Your task to perform on an android device: toggle location history Image 0: 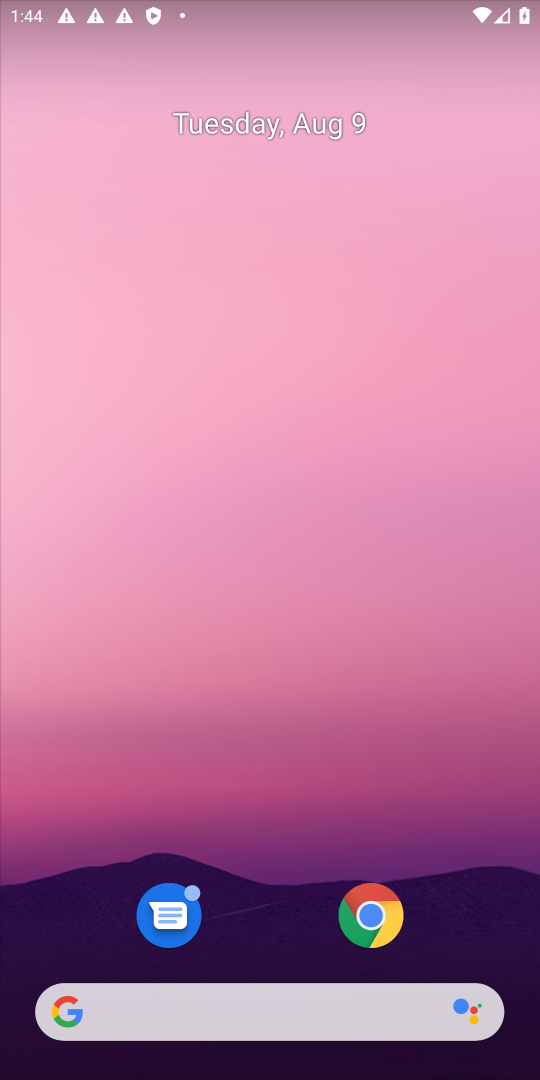
Step 0: drag from (310, 1027) to (222, 336)
Your task to perform on an android device: toggle location history Image 1: 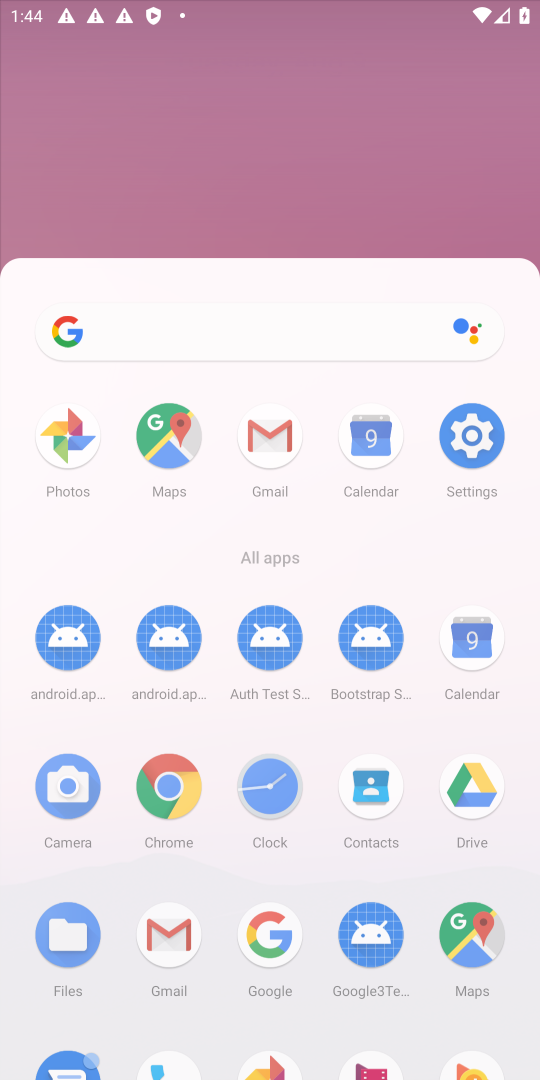
Step 1: click (220, 192)
Your task to perform on an android device: toggle location history Image 2: 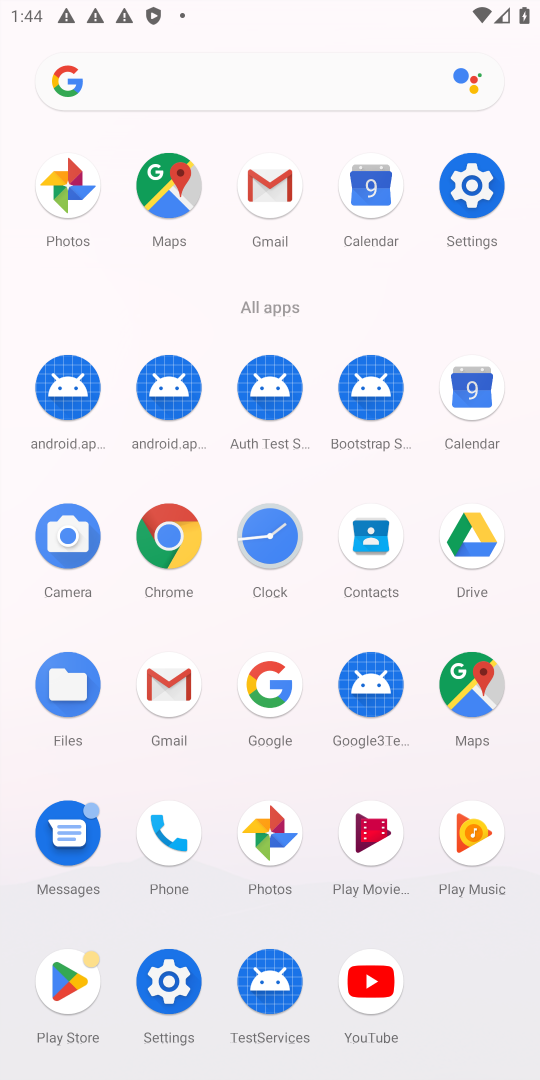
Step 2: drag from (321, 640) to (345, 215)
Your task to perform on an android device: toggle location history Image 3: 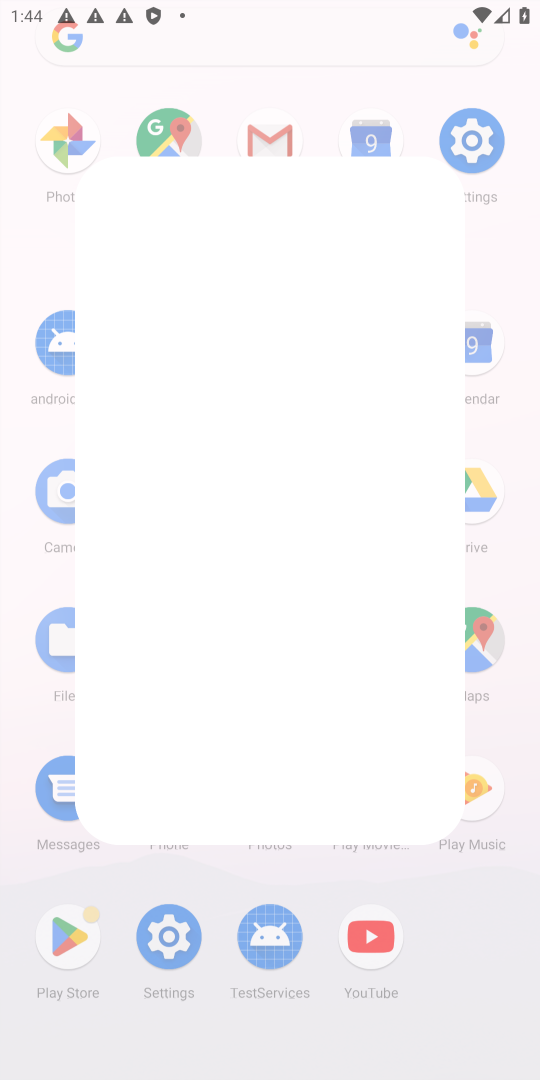
Step 3: click (444, 199)
Your task to perform on an android device: toggle location history Image 4: 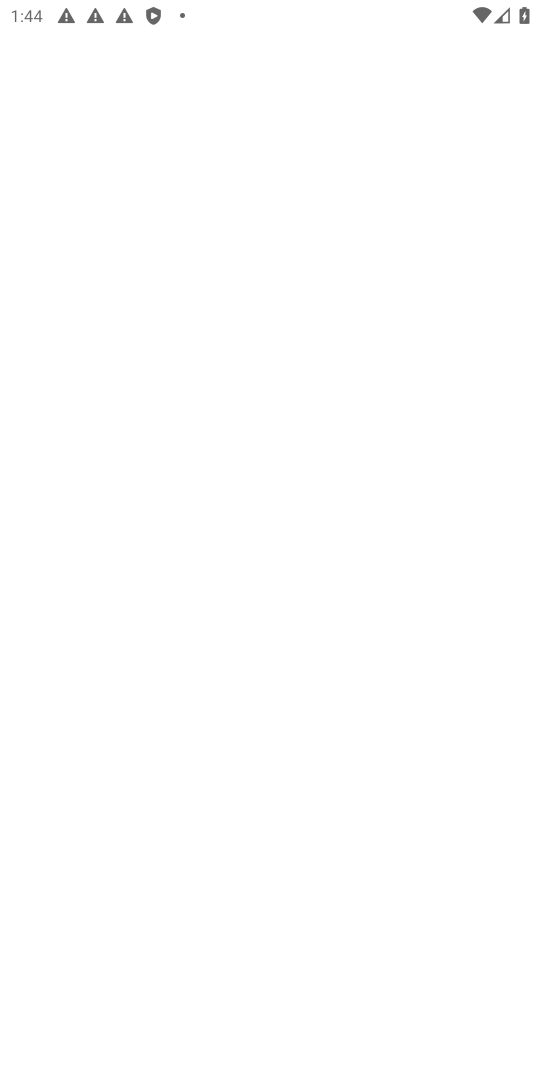
Step 4: click (446, 197)
Your task to perform on an android device: toggle location history Image 5: 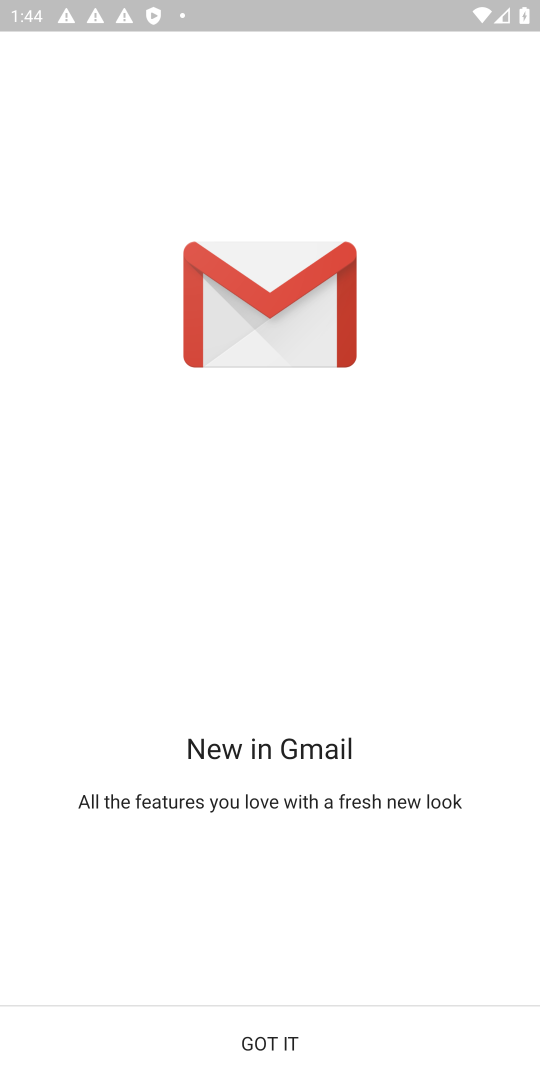
Step 5: press back button
Your task to perform on an android device: toggle location history Image 6: 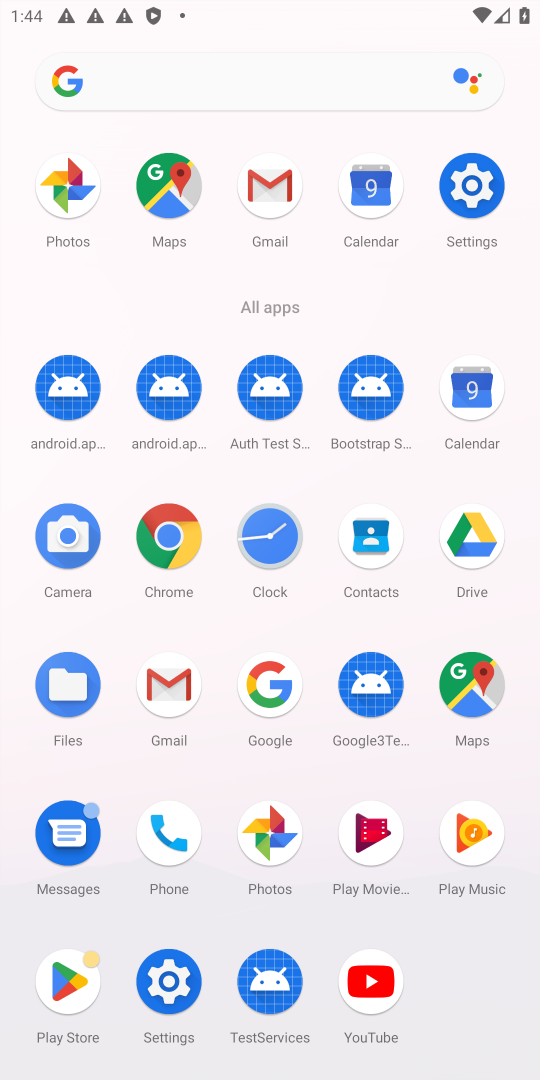
Step 6: click (260, 1049)
Your task to perform on an android device: toggle location history Image 7: 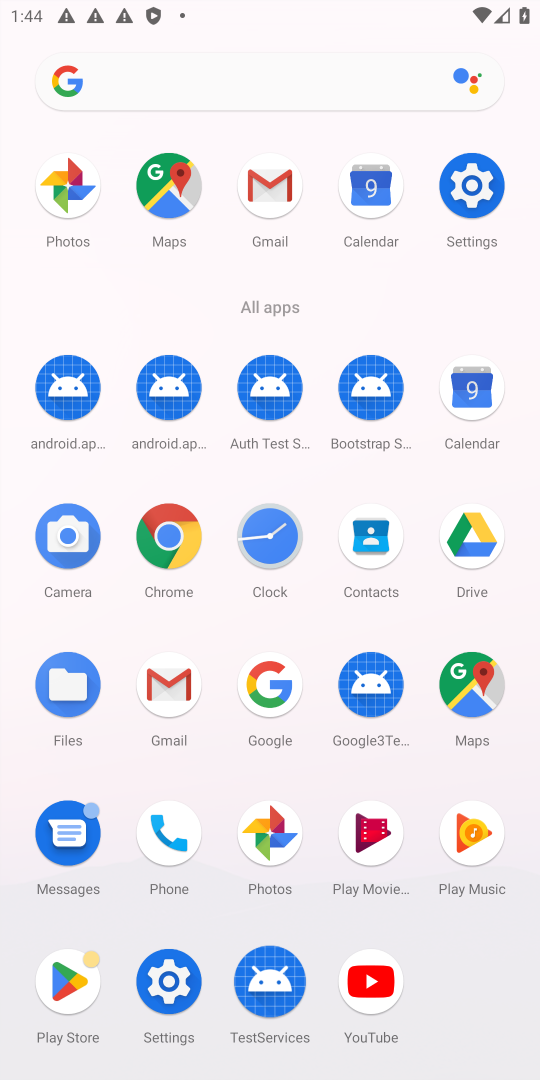
Step 7: click (474, 192)
Your task to perform on an android device: toggle location history Image 8: 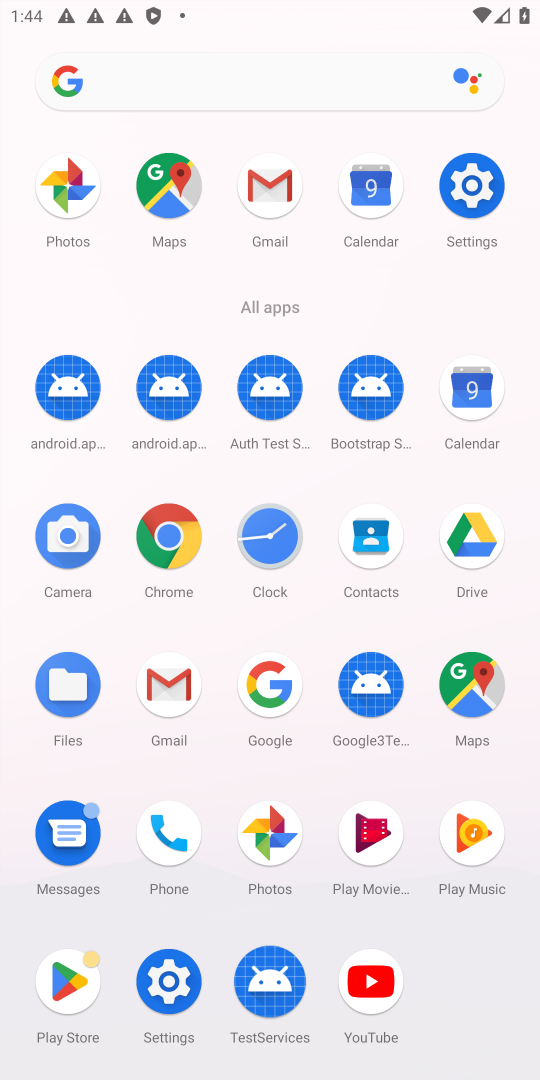
Step 8: click (474, 192)
Your task to perform on an android device: toggle location history Image 9: 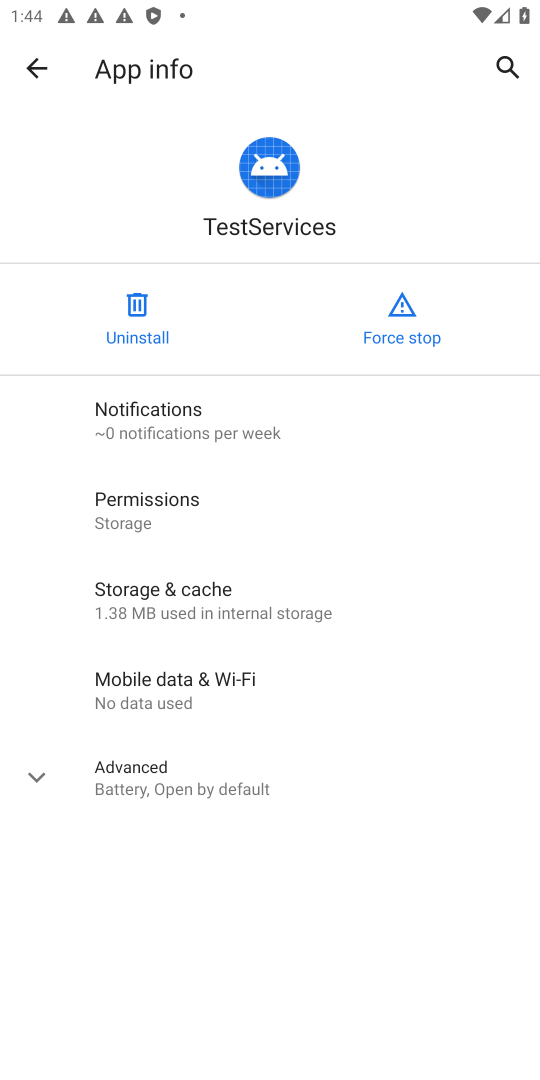
Step 9: click (474, 192)
Your task to perform on an android device: toggle location history Image 10: 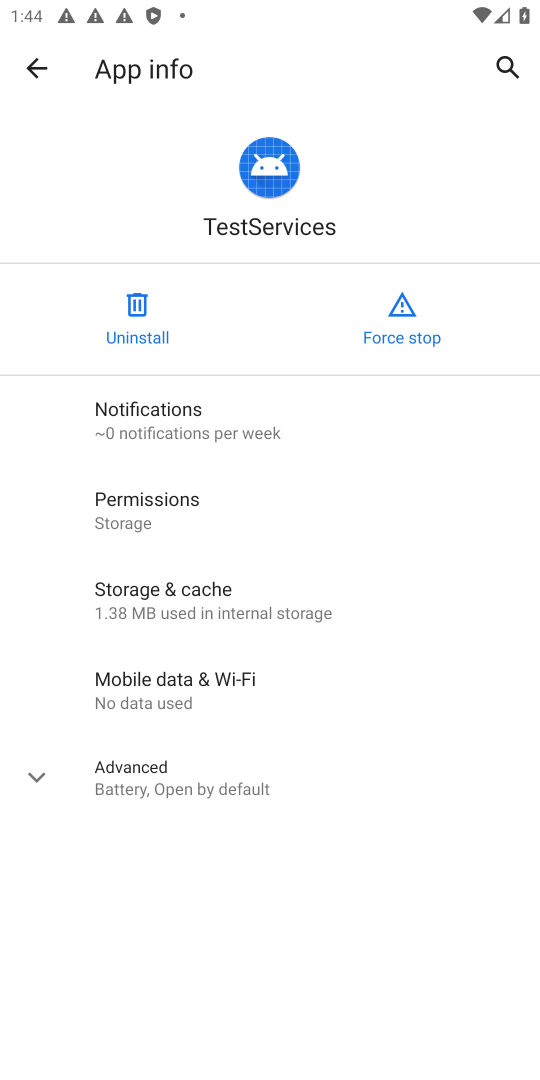
Step 10: click (469, 195)
Your task to perform on an android device: toggle location history Image 11: 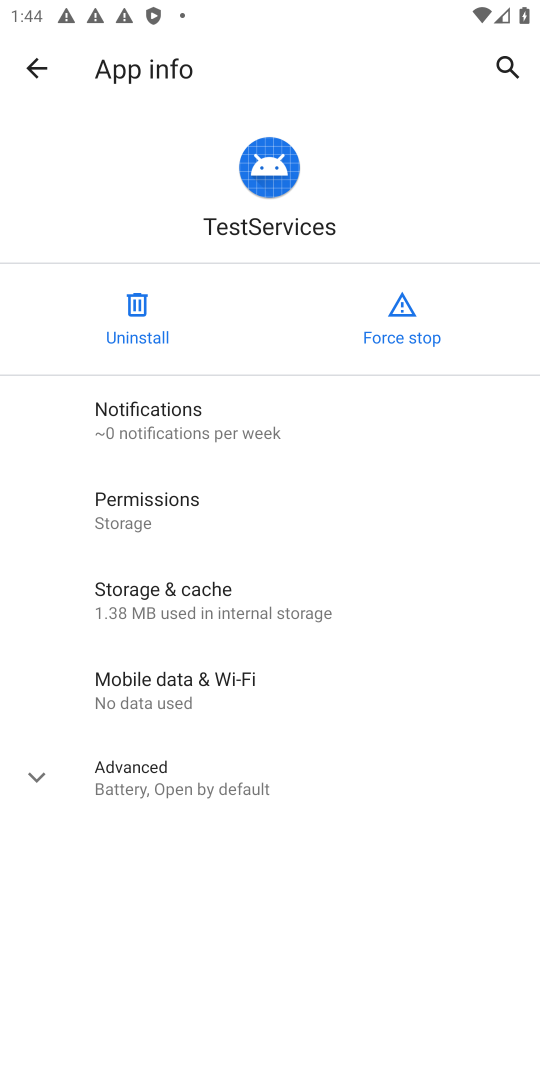
Step 11: click (38, 75)
Your task to perform on an android device: toggle location history Image 12: 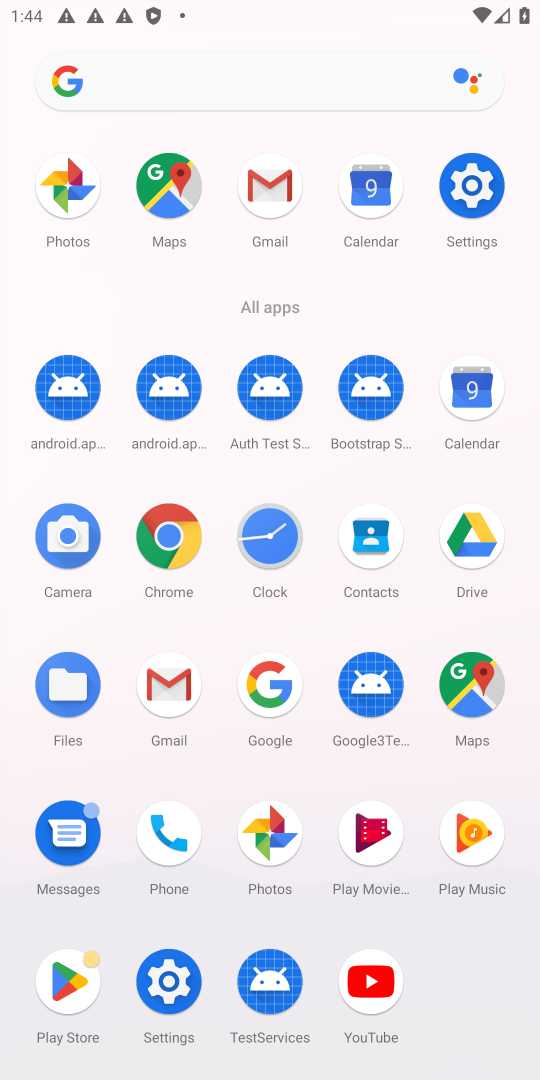
Step 12: click (466, 169)
Your task to perform on an android device: toggle location history Image 13: 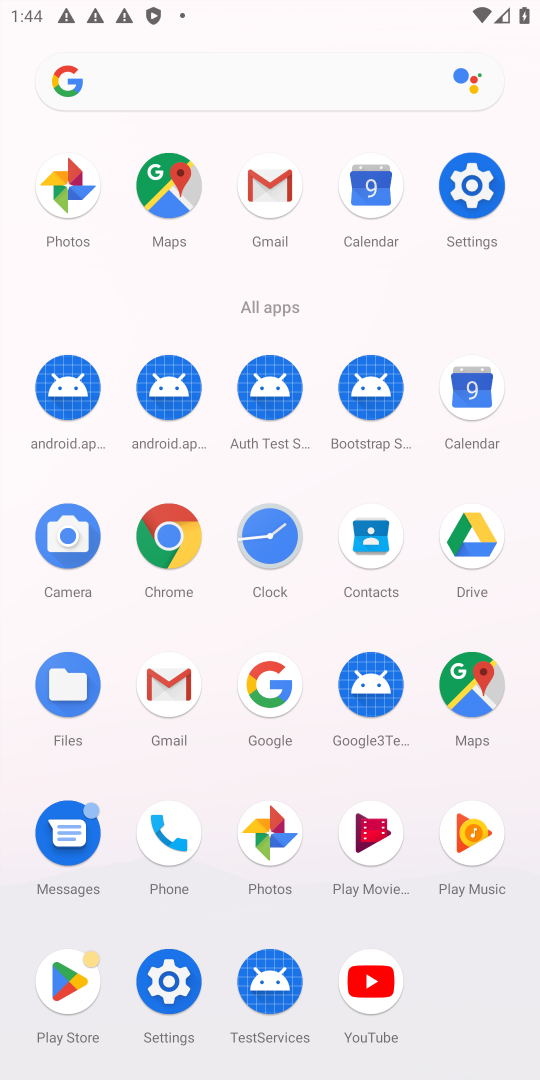
Step 13: click (468, 175)
Your task to perform on an android device: toggle location history Image 14: 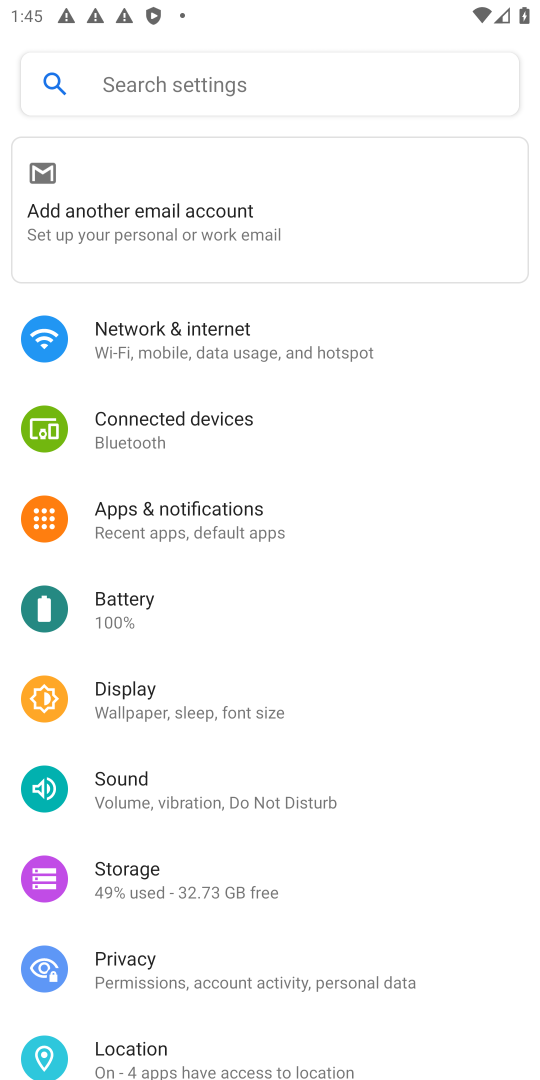
Step 14: drag from (160, 930) to (185, 529)
Your task to perform on an android device: toggle location history Image 15: 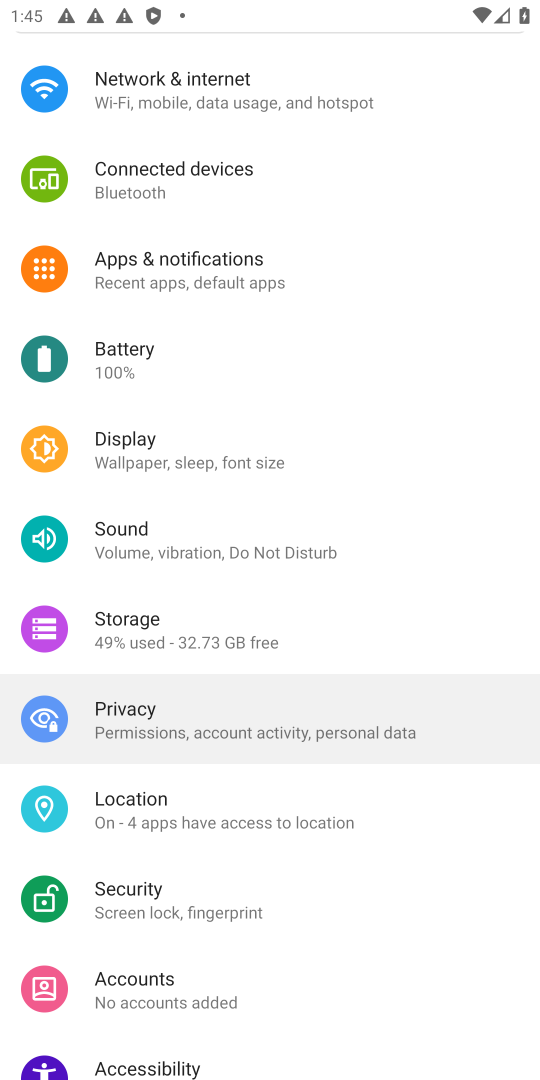
Step 15: drag from (187, 869) to (187, 574)
Your task to perform on an android device: toggle location history Image 16: 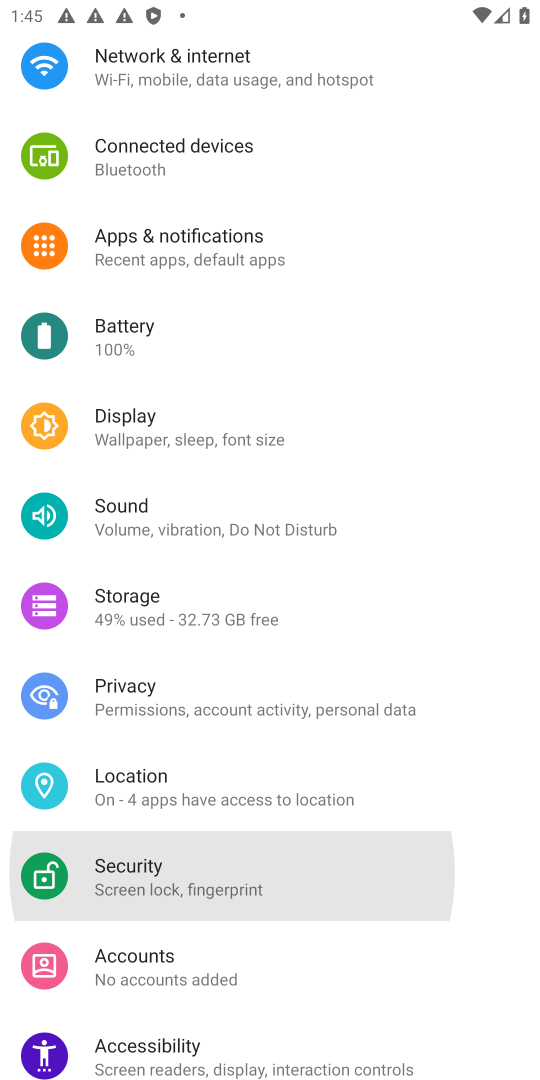
Step 16: drag from (280, 917) to (277, 531)
Your task to perform on an android device: toggle location history Image 17: 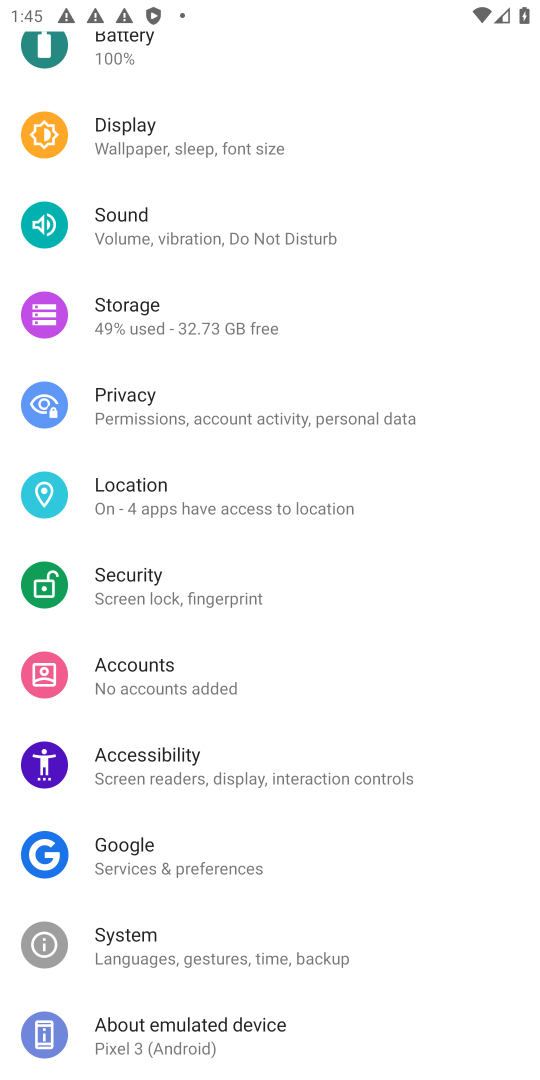
Step 17: click (127, 587)
Your task to perform on an android device: toggle location history Image 18: 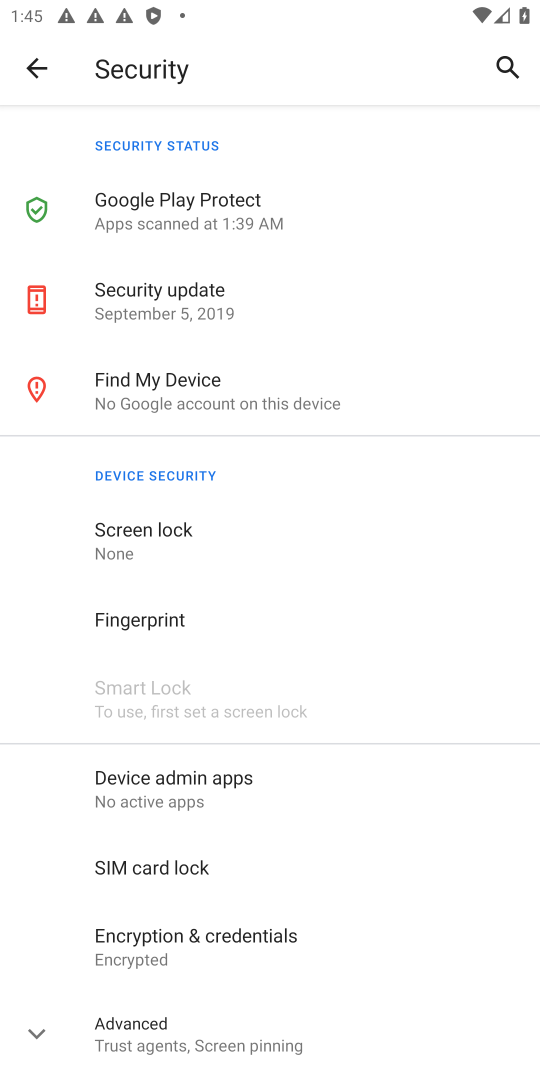
Step 18: click (31, 68)
Your task to perform on an android device: toggle location history Image 19: 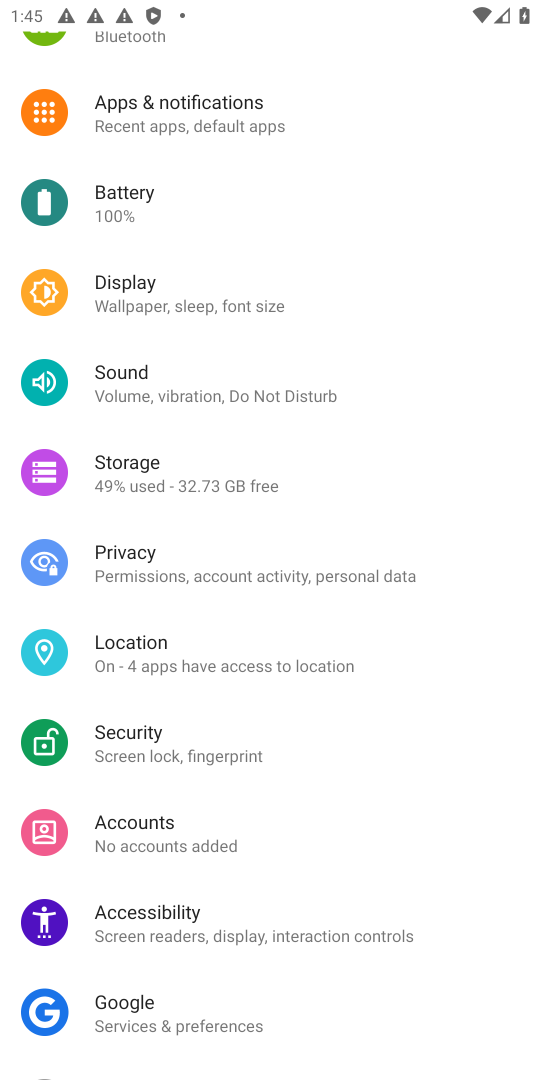
Step 19: click (132, 630)
Your task to perform on an android device: toggle location history Image 20: 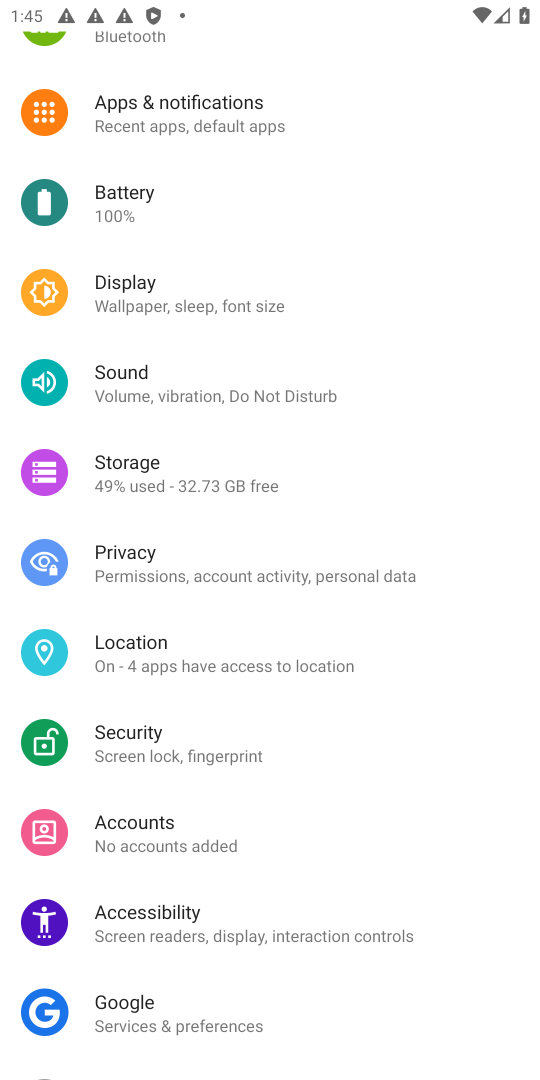
Step 20: click (138, 663)
Your task to perform on an android device: toggle location history Image 21: 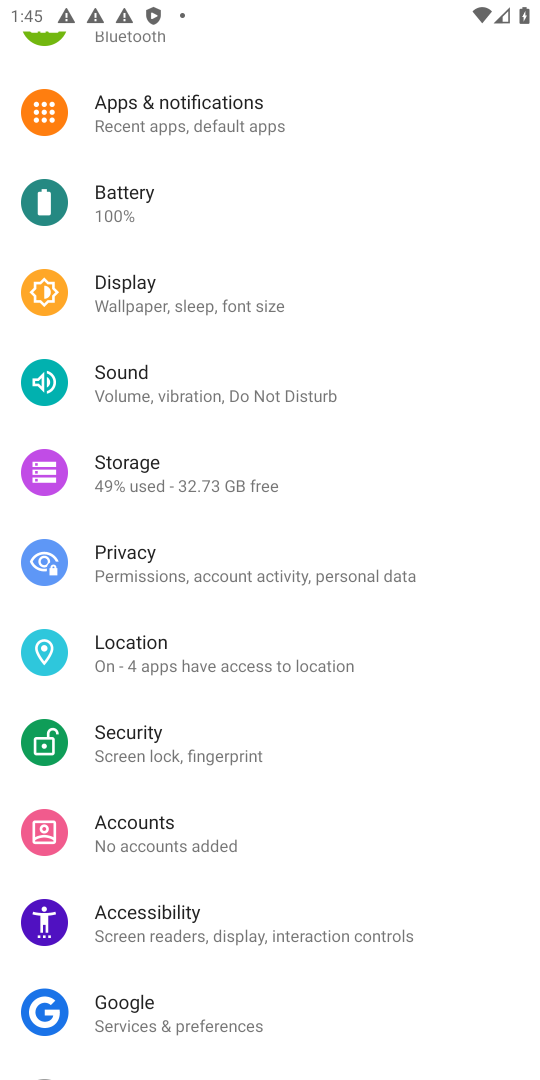
Step 21: click (138, 663)
Your task to perform on an android device: toggle location history Image 22: 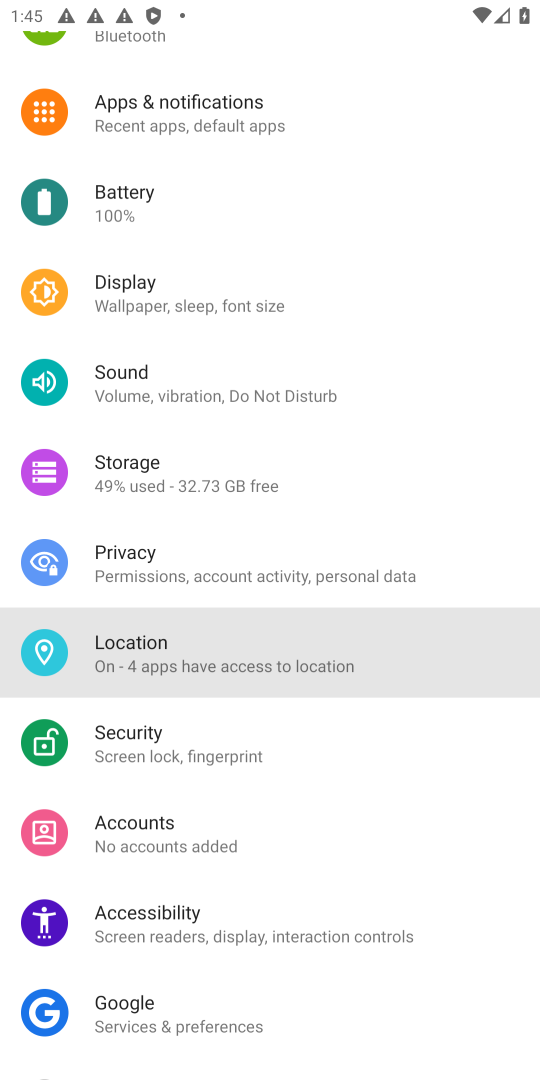
Step 22: click (138, 663)
Your task to perform on an android device: toggle location history Image 23: 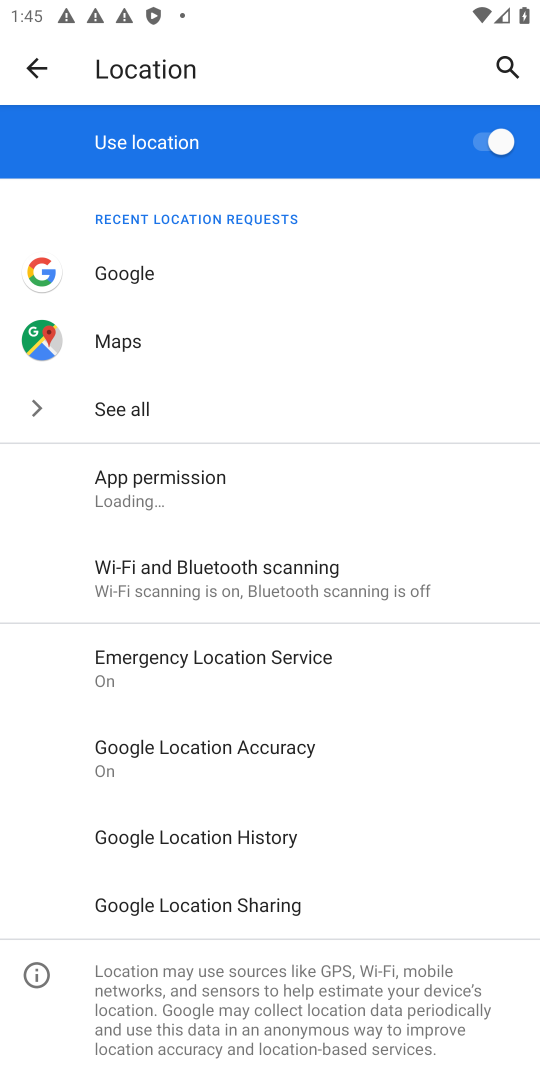
Step 23: click (202, 838)
Your task to perform on an android device: toggle location history Image 24: 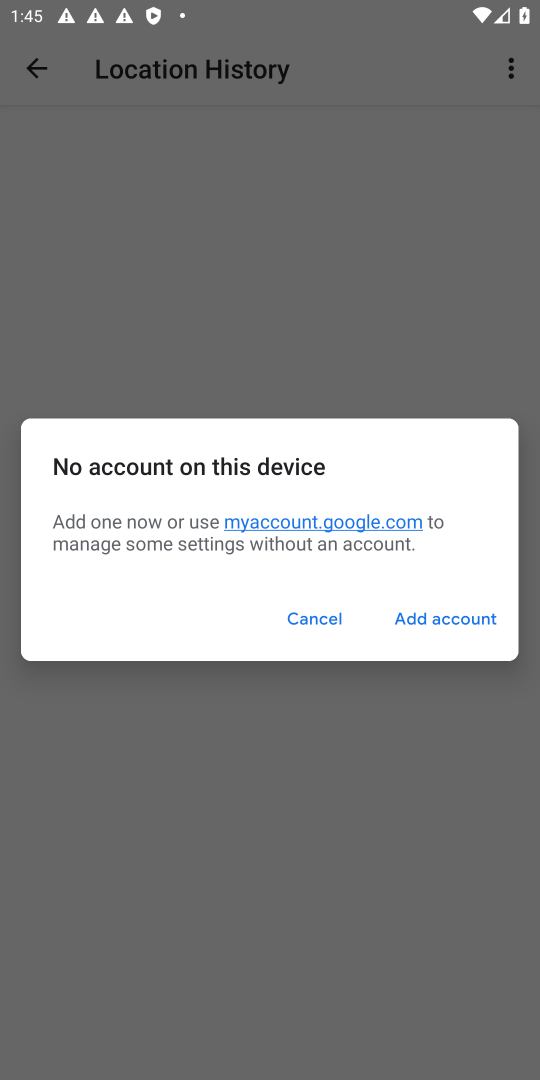
Step 24: click (315, 619)
Your task to perform on an android device: toggle location history Image 25: 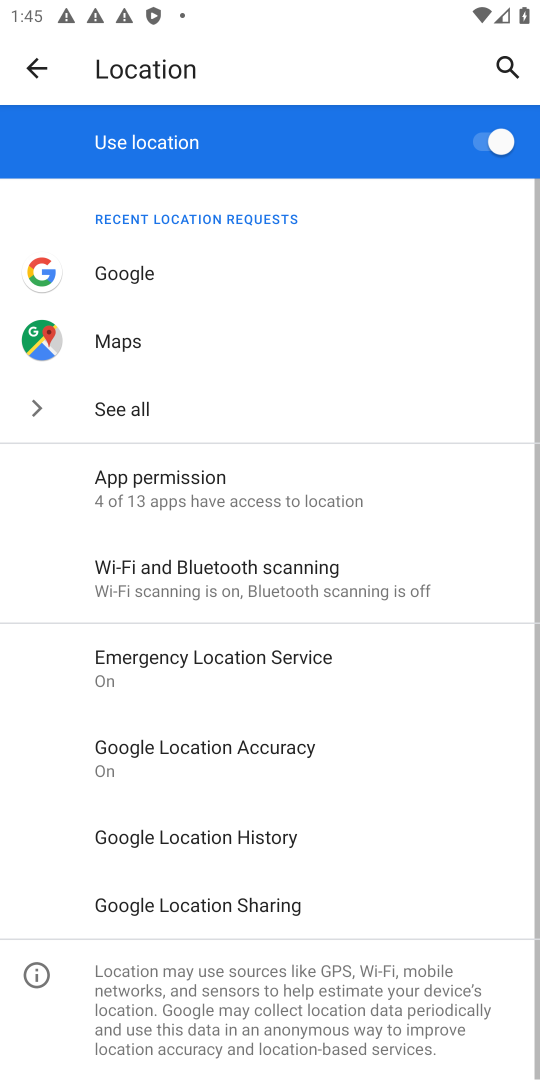
Step 25: click (197, 829)
Your task to perform on an android device: toggle location history Image 26: 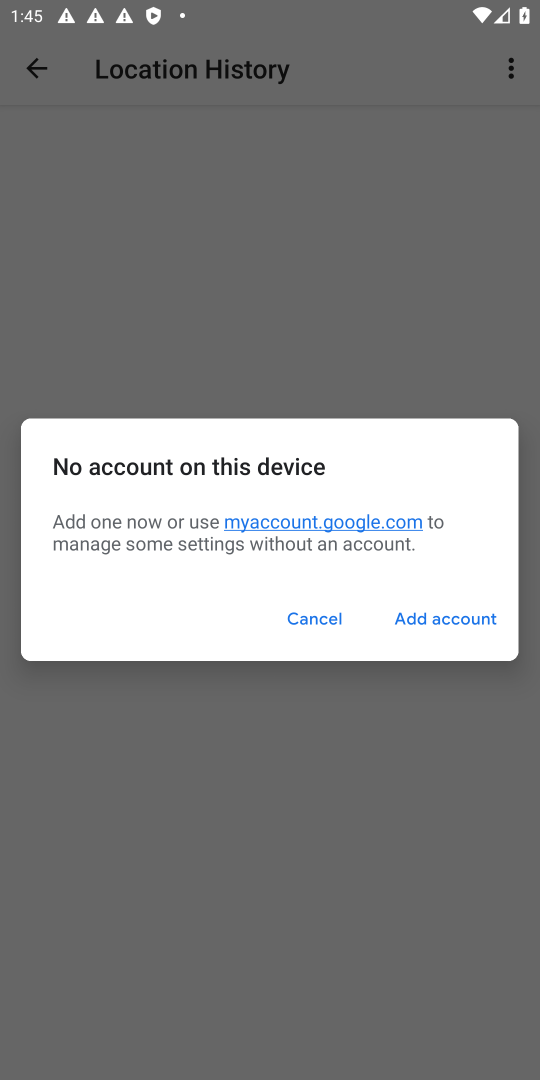
Step 26: click (315, 635)
Your task to perform on an android device: toggle location history Image 27: 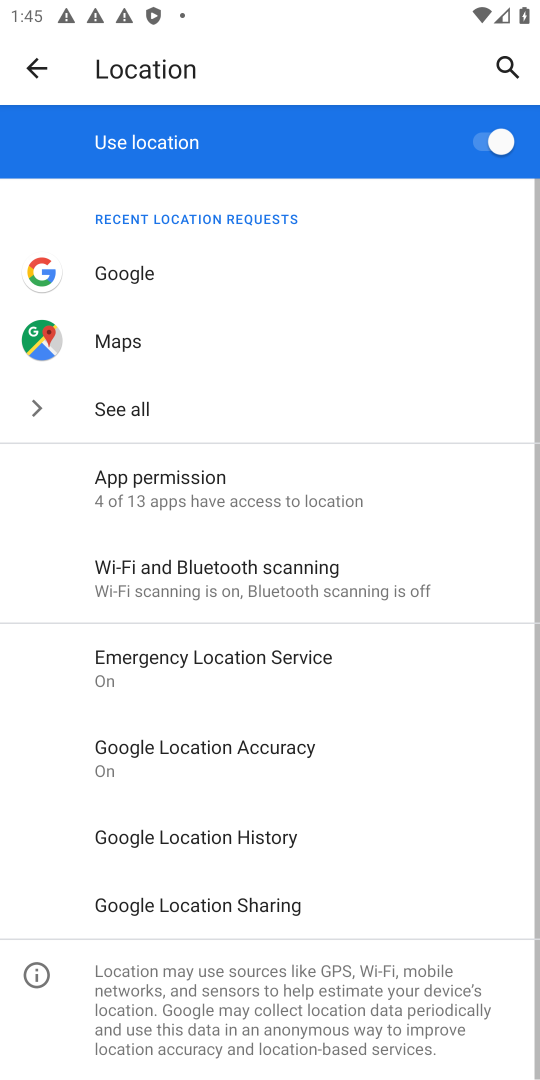
Step 27: task complete